Your task to perform on an android device: Add "dell xps" to the cart on bestbuy Image 0: 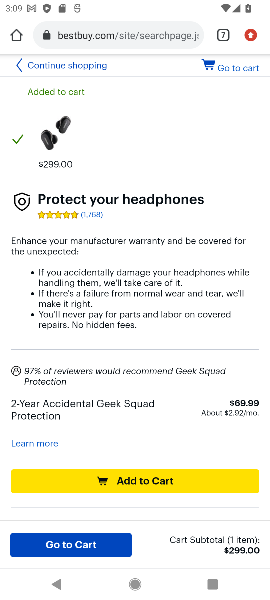
Step 0: click (68, 549)
Your task to perform on an android device: Add "dell xps" to the cart on bestbuy Image 1: 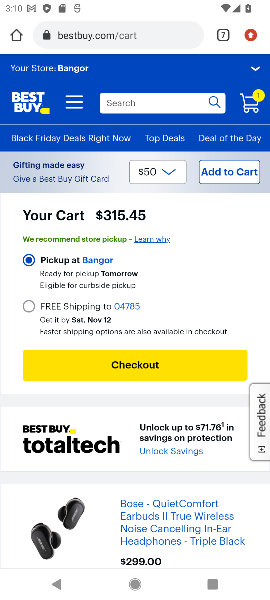
Step 1: click (150, 106)
Your task to perform on an android device: Add "dell xps" to the cart on bestbuy Image 2: 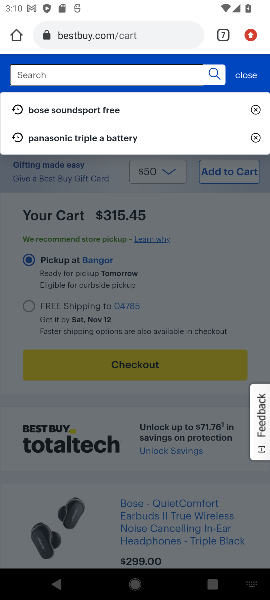
Step 2: type "dell xps"
Your task to perform on an android device: Add "dell xps" to the cart on bestbuy Image 3: 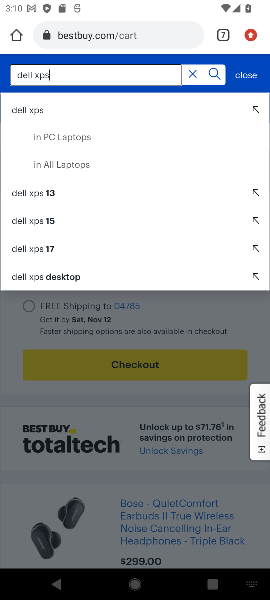
Step 3: click (21, 113)
Your task to perform on an android device: Add "dell xps" to the cart on bestbuy Image 4: 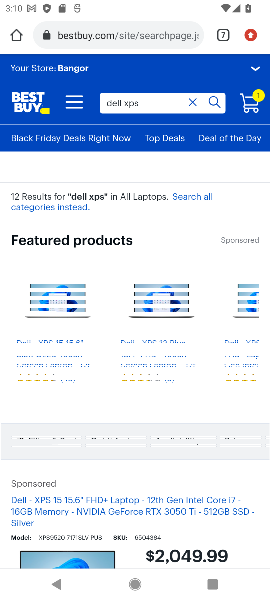
Step 4: drag from (167, 525) to (248, 123)
Your task to perform on an android device: Add "dell xps" to the cart on bestbuy Image 5: 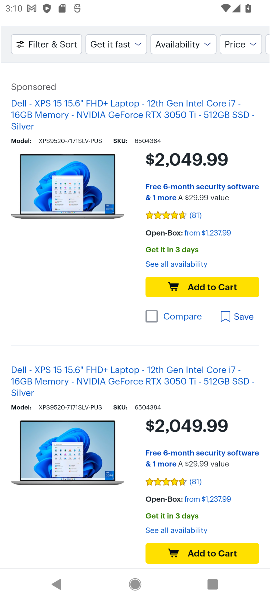
Step 5: click (208, 287)
Your task to perform on an android device: Add "dell xps" to the cart on bestbuy Image 6: 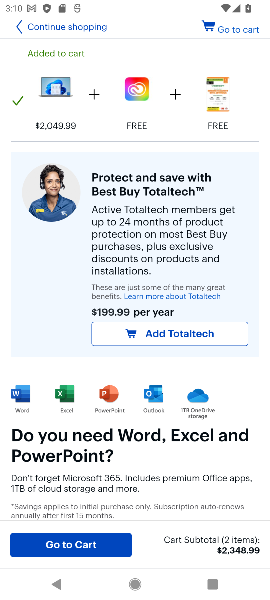
Step 6: task complete